Your task to perform on an android device: Open the web browser Image 0: 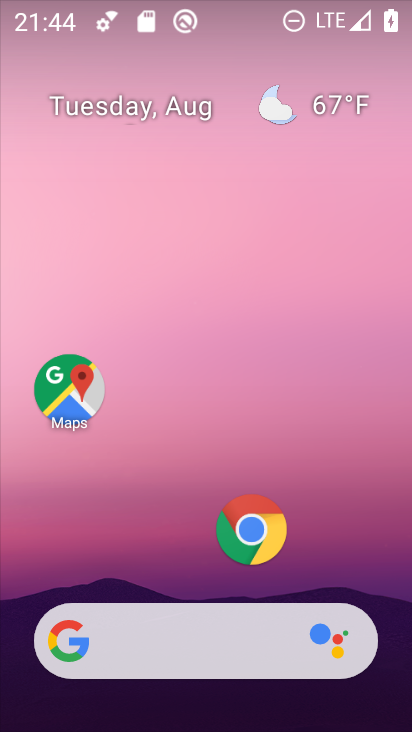
Step 0: click (411, 360)
Your task to perform on an android device: Open the web browser Image 1: 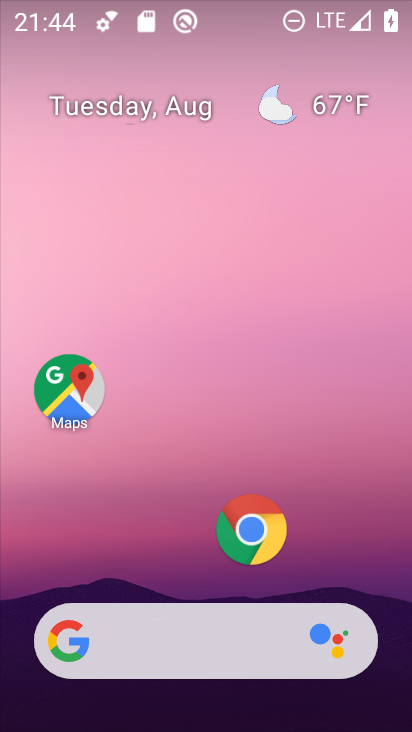
Step 1: drag from (188, 566) to (229, 340)
Your task to perform on an android device: Open the web browser Image 2: 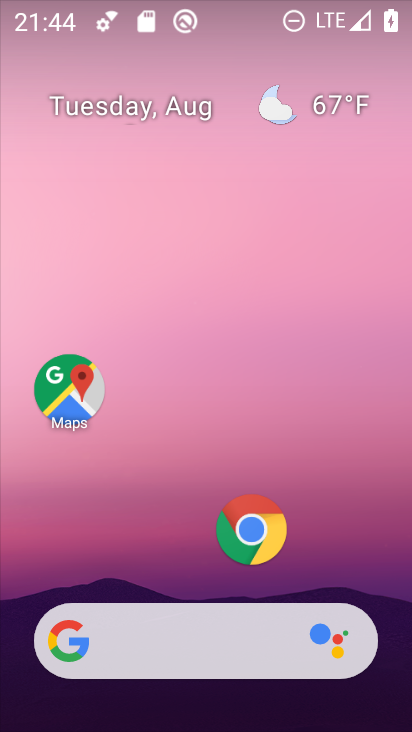
Step 2: drag from (175, 454) to (186, 71)
Your task to perform on an android device: Open the web browser Image 3: 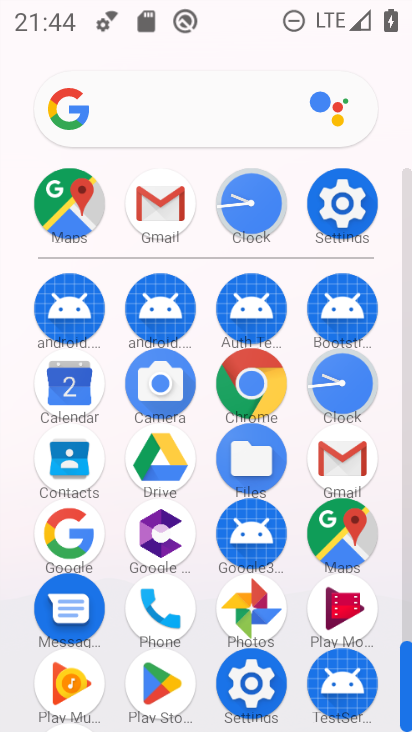
Step 3: click (234, 369)
Your task to perform on an android device: Open the web browser Image 4: 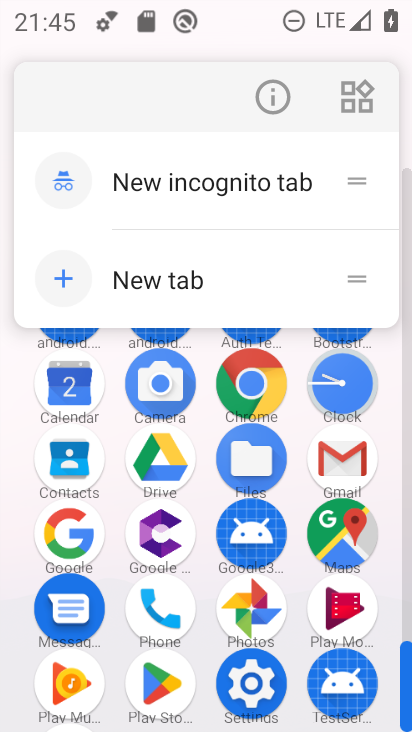
Step 4: click (263, 99)
Your task to perform on an android device: Open the web browser Image 5: 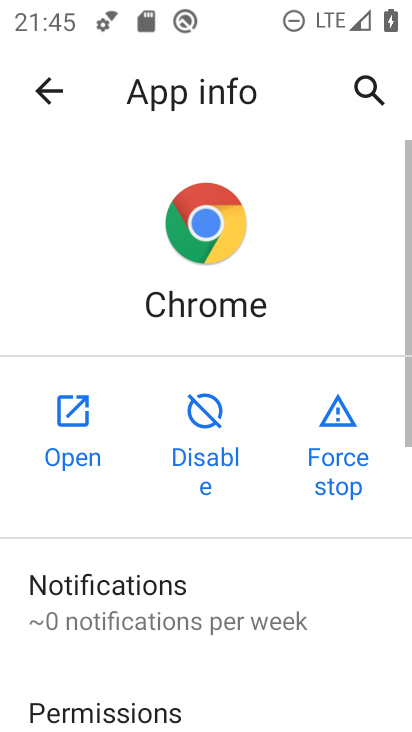
Step 5: click (71, 412)
Your task to perform on an android device: Open the web browser Image 6: 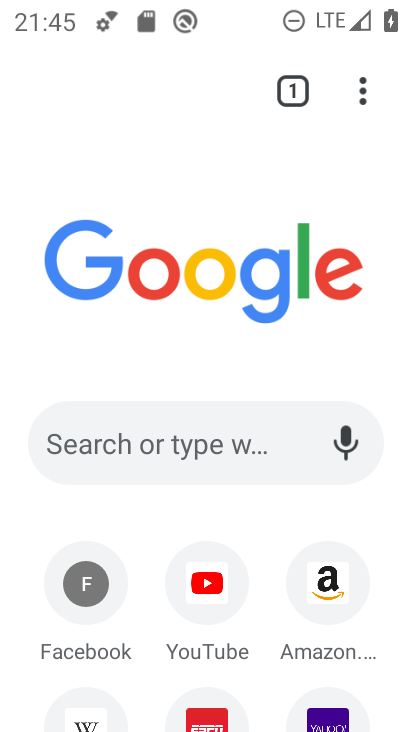
Step 6: task complete